Your task to perform on an android device: toggle notification dots Image 0: 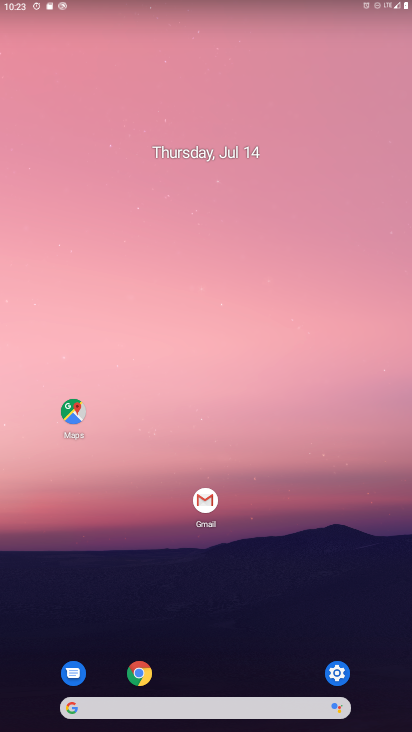
Step 0: click (339, 673)
Your task to perform on an android device: toggle notification dots Image 1: 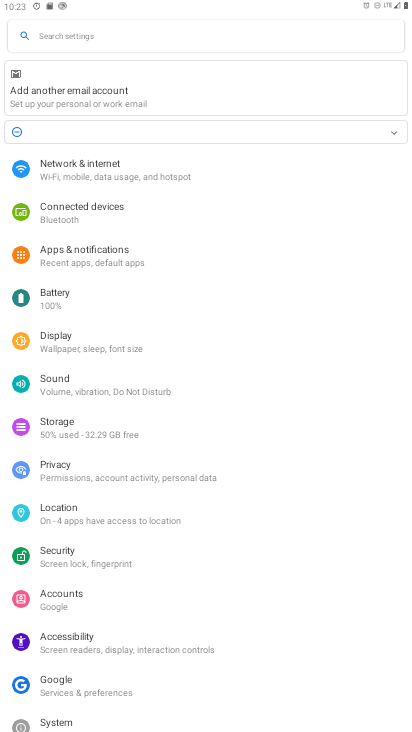
Step 1: click (89, 37)
Your task to perform on an android device: toggle notification dots Image 2: 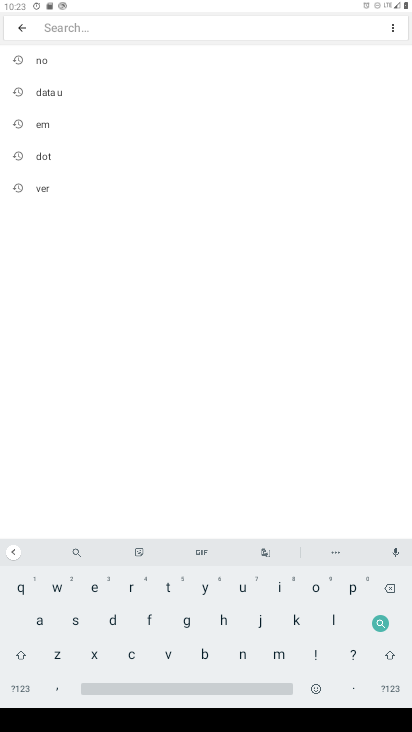
Step 2: click (95, 66)
Your task to perform on an android device: toggle notification dots Image 3: 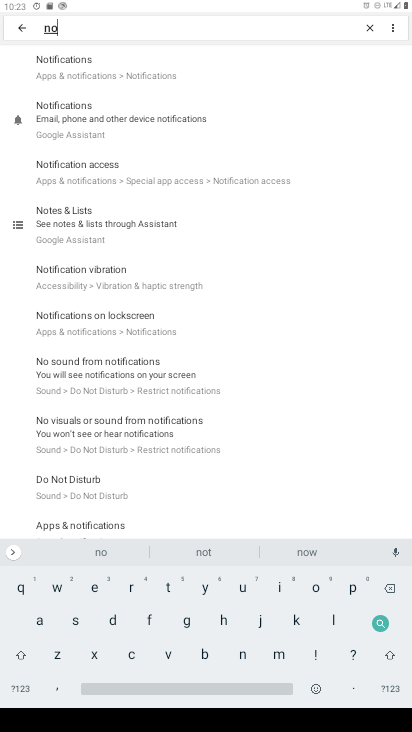
Step 3: click (73, 70)
Your task to perform on an android device: toggle notification dots Image 4: 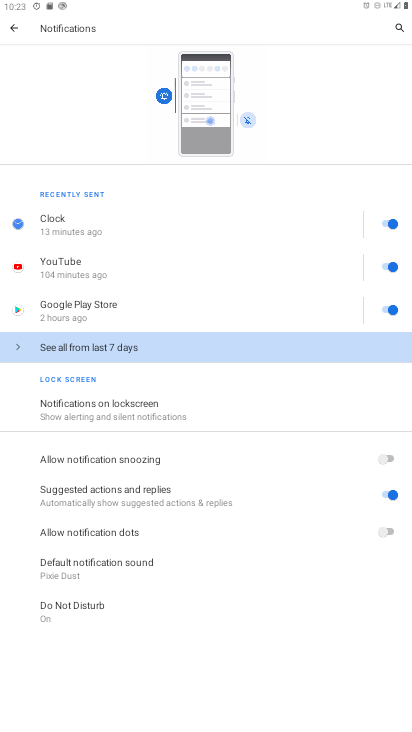
Step 4: click (273, 546)
Your task to perform on an android device: toggle notification dots Image 5: 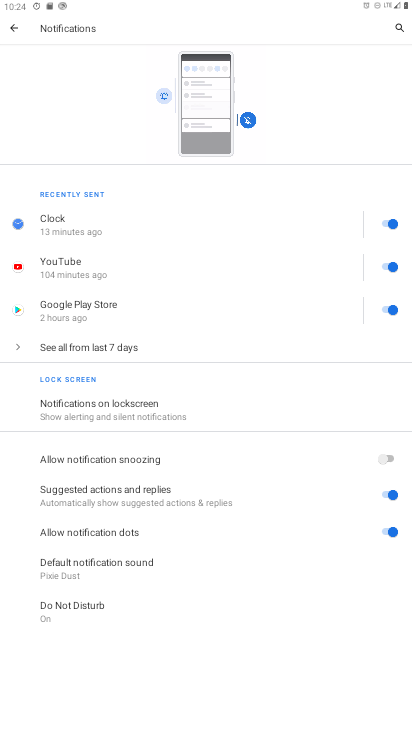
Step 5: task complete